Your task to perform on an android device: Open location settings Image 0: 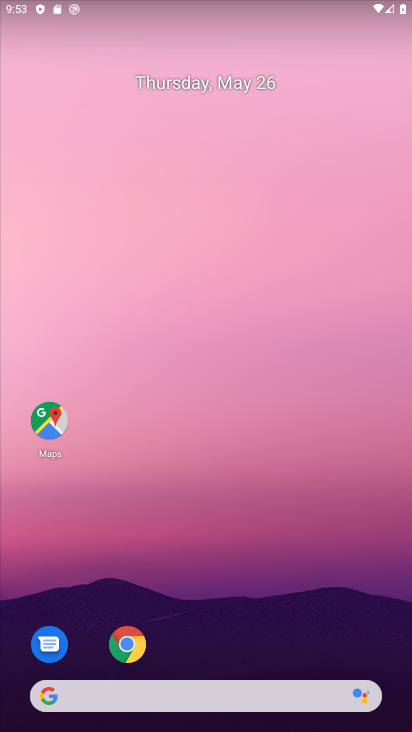
Step 0: drag from (365, 626) to (323, 181)
Your task to perform on an android device: Open location settings Image 1: 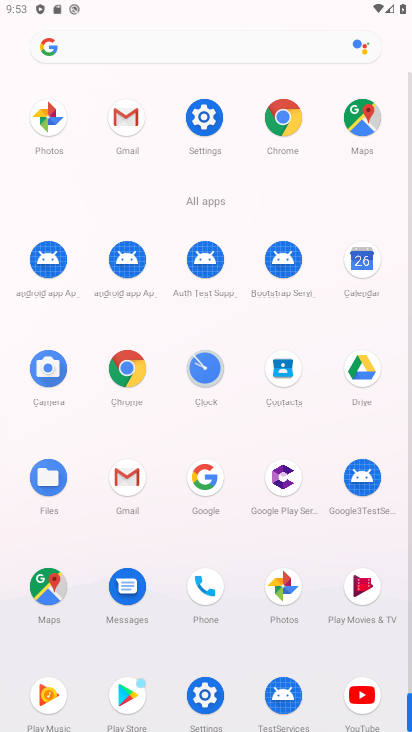
Step 1: click (197, 143)
Your task to perform on an android device: Open location settings Image 2: 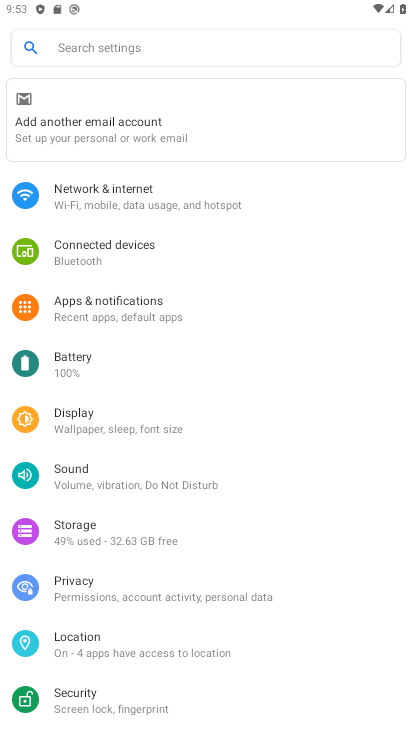
Step 2: drag from (309, 587) to (297, 408)
Your task to perform on an android device: Open location settings Image 3: 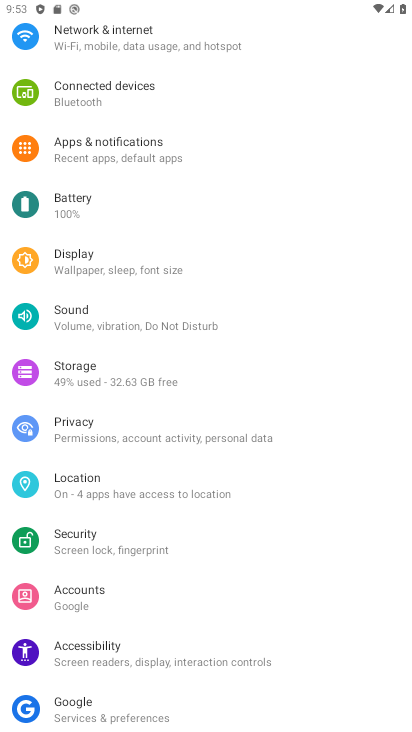
Step 3: drag from (271, 602) to (282, 512)
Your task to perform on an android device: Open location settings Image 4: 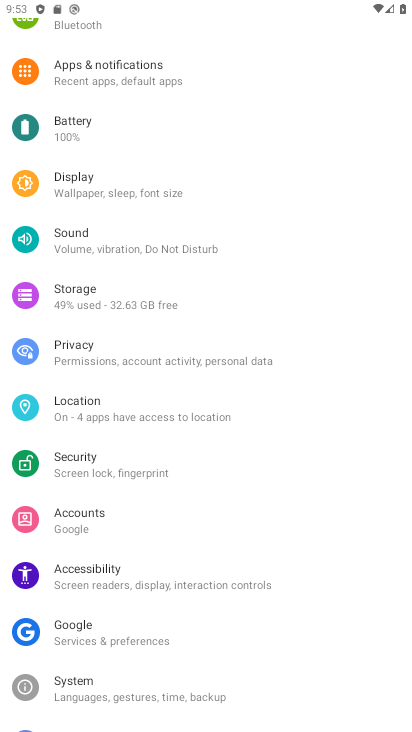
Step 4: click (155, 392)
Your task to perform on an android device: Open location settings Image 5: 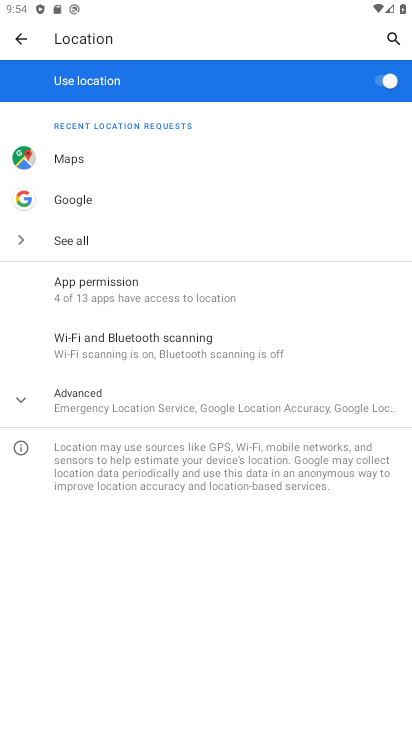
Step 5: task complete